Your task to perform on an android device: Go to Yahoo.com Image 0: 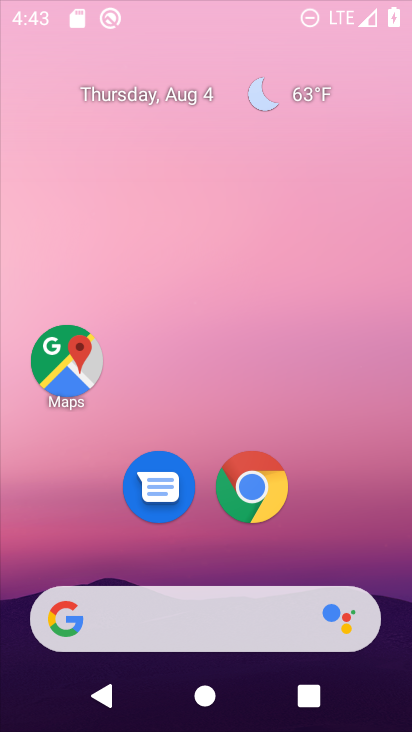
Step 0: click (256, 480)
Your task to perform on an android device: Go to Yahoo.com Image 1: 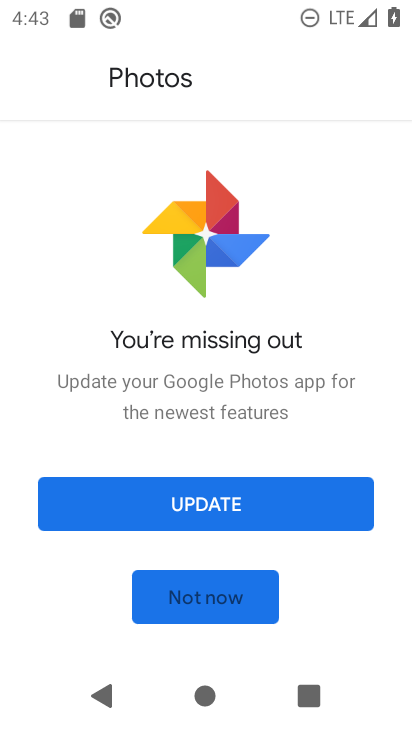
Step 1: click (214, 628)
Your task to perform on an android device: Go to Yahoo.com Image 2: 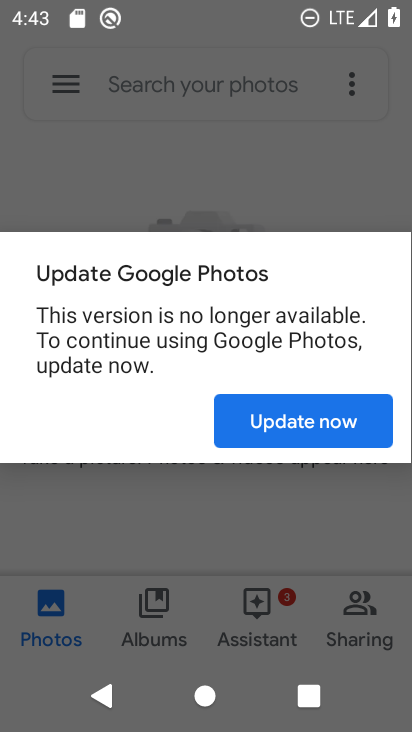
Step 2: press home button
Your task to perform on an android device: Go to Yahoo.com Image 3: 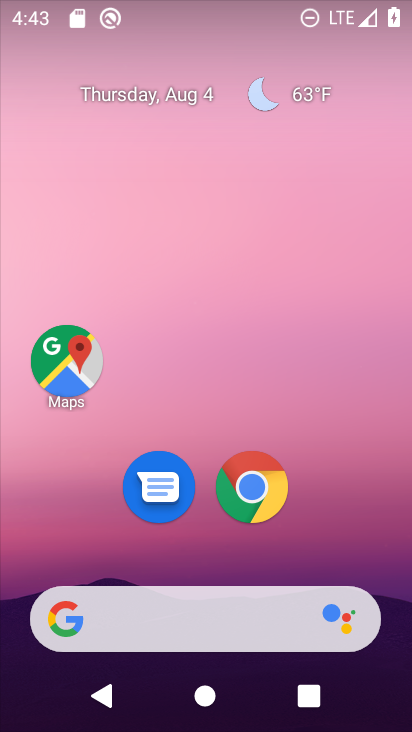
Step 3: click (256, 483)
Your task to perform on an android device: Go to Yahoo.com Image 4: 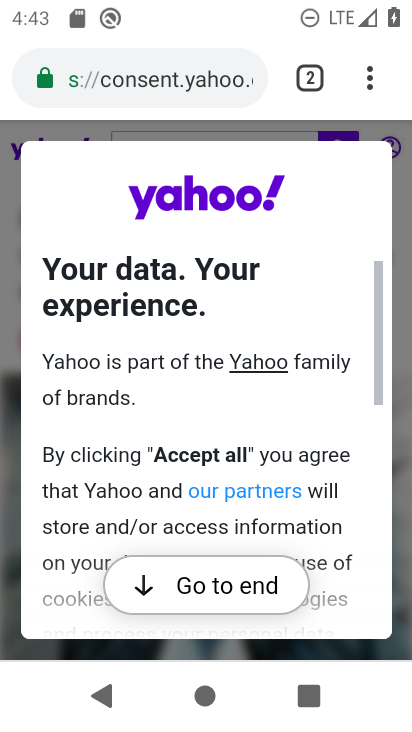
Step 4: task complete